Your task to perform on an android device: Open accessibility settings Image 0: 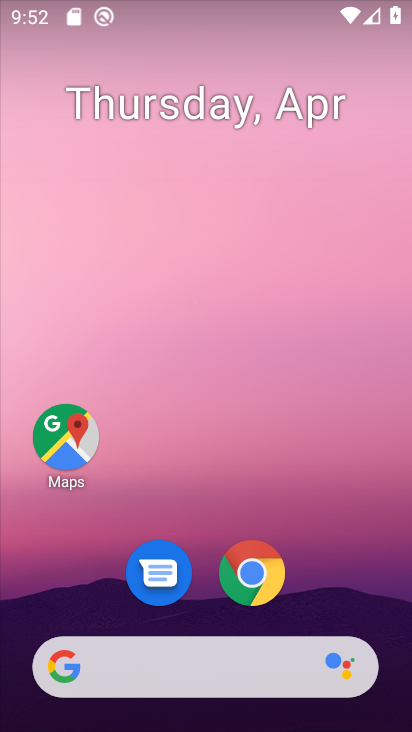
Step 0: drag from (195, 612) to (258, 50)
Your task to perform on an android device: Open accessibility settings Image 1: 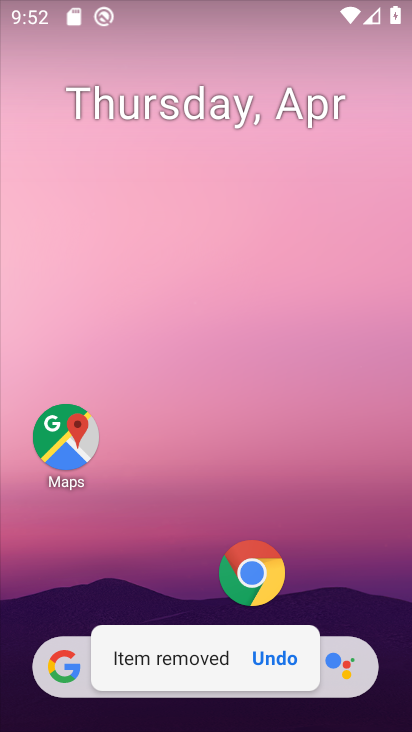
Step 1: drag from (188, 559) to (243, 131)
Your task to perform on an android device: Open accessibility settings Image 2: 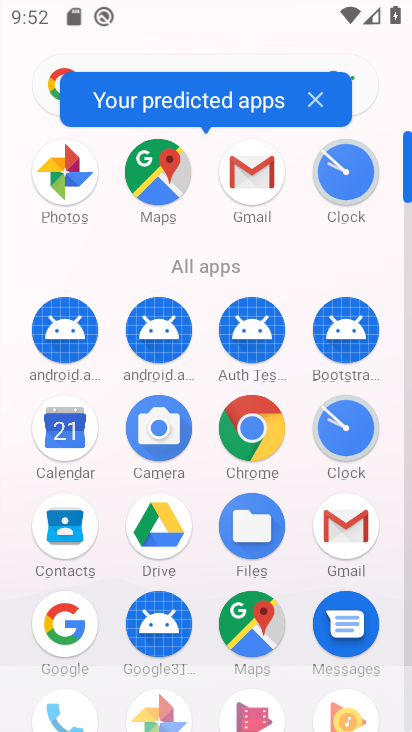
Step 2: drag from (201, 560) to (225, 217)
Your task to perform on an android device: Open accessibility settings Image 3: 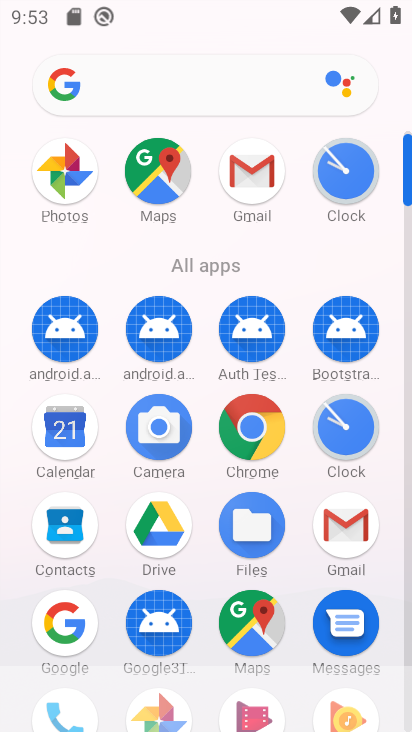
Step 3: drag from (194, 557) to (191, 154)
Your task to perform on an android device: Open accessibility settings Image 4: 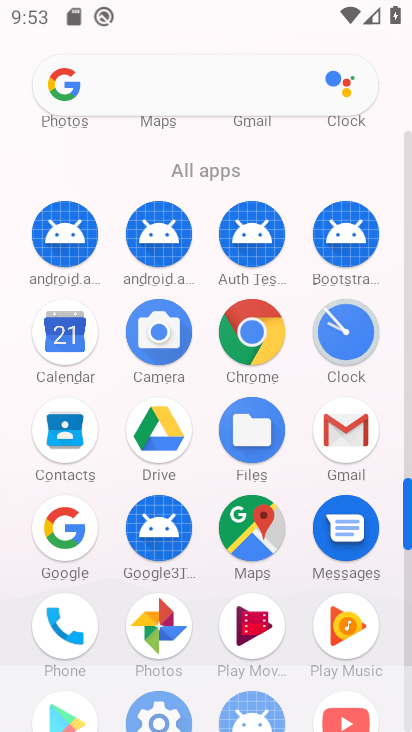
Step 4: drag from (196, 614) to (210, 254)
Your task to perform on an android device: Open accessibility settings Image 5: 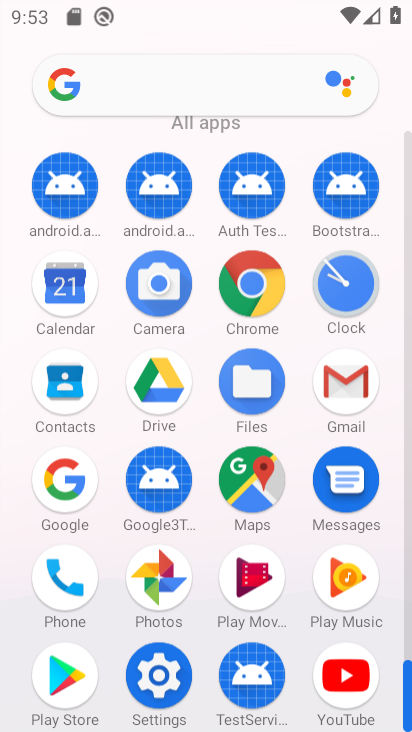
Step 5: click (164, 663)
Your task to perform on an android device: Open accessibility settings Image 6: 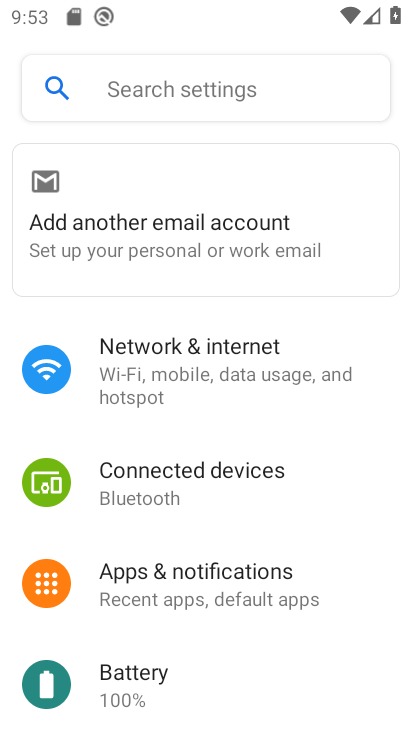
Step 6: drag from (219, 326) to (221, 188)
Your task to perform on an android device: Open accessibility settings Image 7: 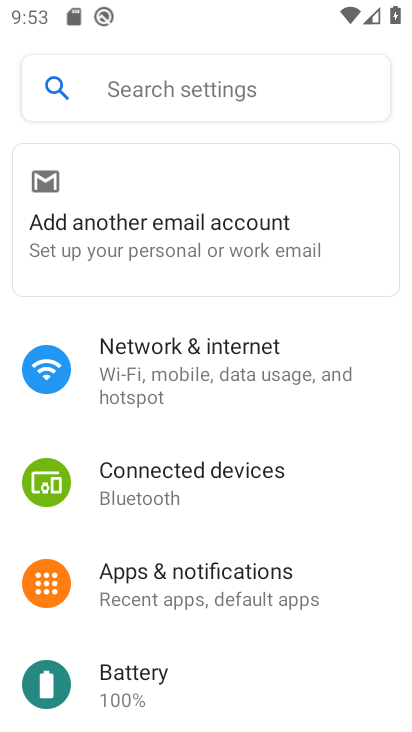
Step 7: drag from (212, 364) to (224, 220)
Your task to perform on an android device: Open accessibility settings Image 8: 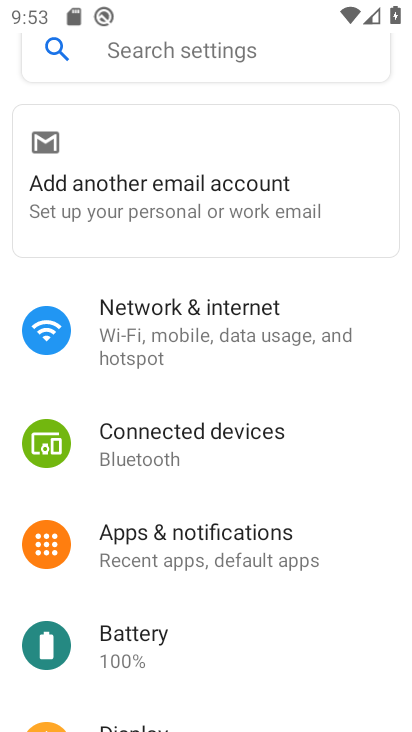
Step 8: drag from (227, 597) to (249, 308)
Your task to perform on an android device: Open accessibility settings Image 9: 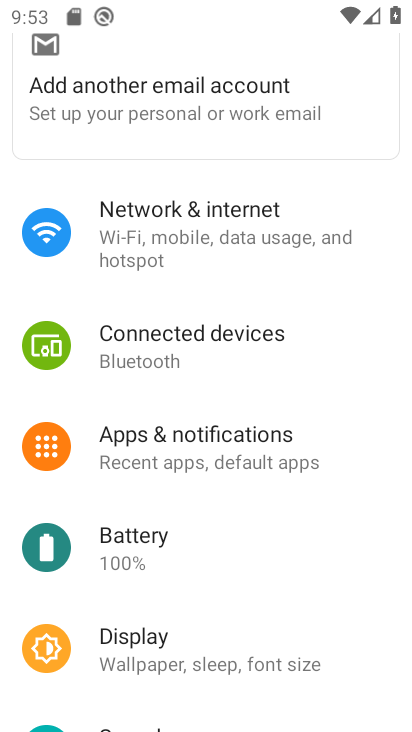
Step 9: drag from (208, 613) to (263, 282)
Your task to perform on an android device: Open accessibility settings Image 10: 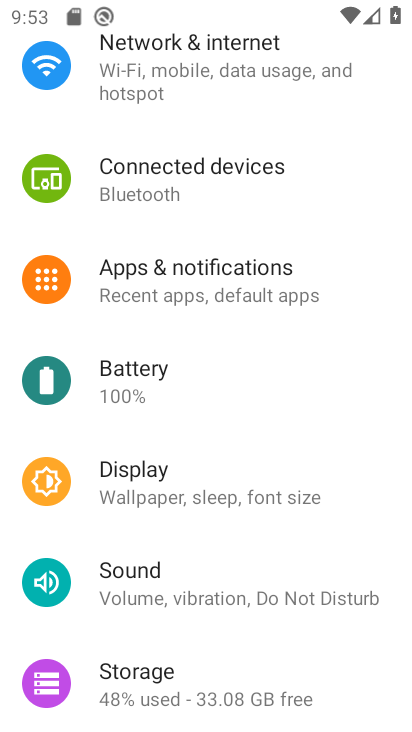
Step 10: drag from (210, 582) to (250, 204)
Your task to perform on an android device: Open accessibility settings Image 11: 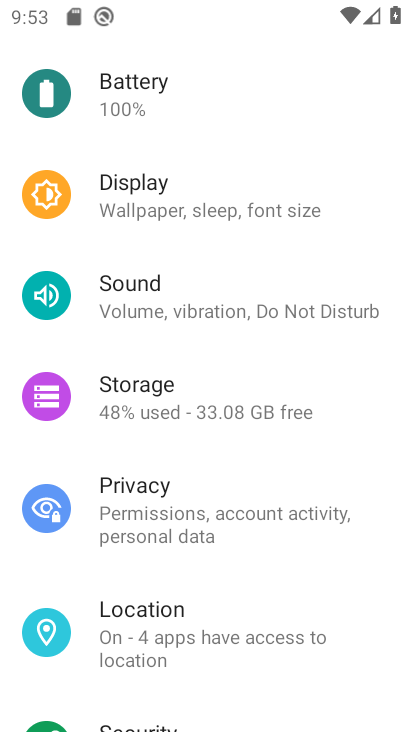
Step 11: drag from (212, 618) to (261, 197)
Your task to perform on an android device: Open accessibility settings Image 12: 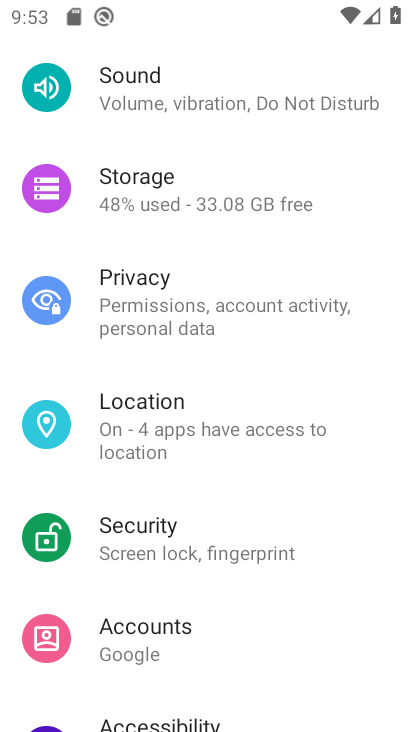
Step 12: drag from (259, 600) to (302, 268)
Your task to perform on an android device: Open accessibility settings Image 13: 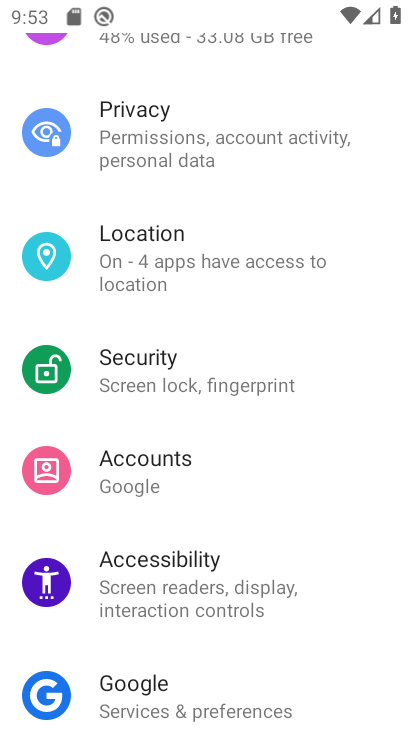
Step 13: click (229, 575)
Your task to perform on an android device: Open accessibility settings Image 14: 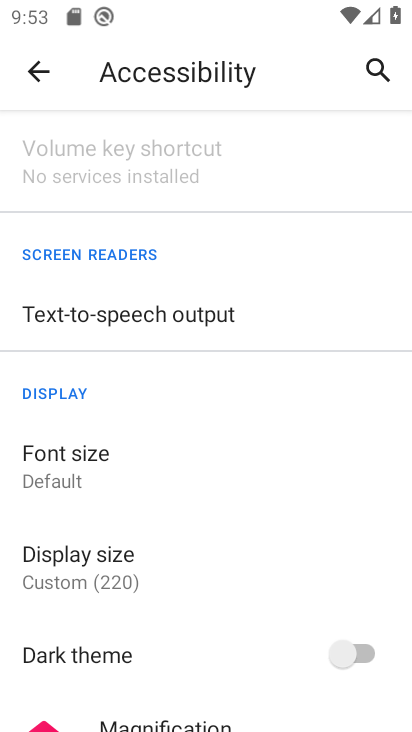
Step 14: task complete